Your task to perform on an android device: toggle translation in the chrome app Image 0: 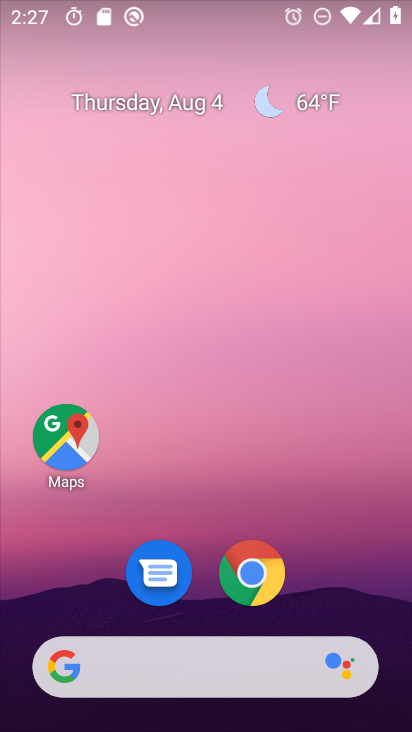
Step 0: drag from (327, 602) to (365, 188)
Your task to perform on an android device: toggle translation in the chrome app Image 1: 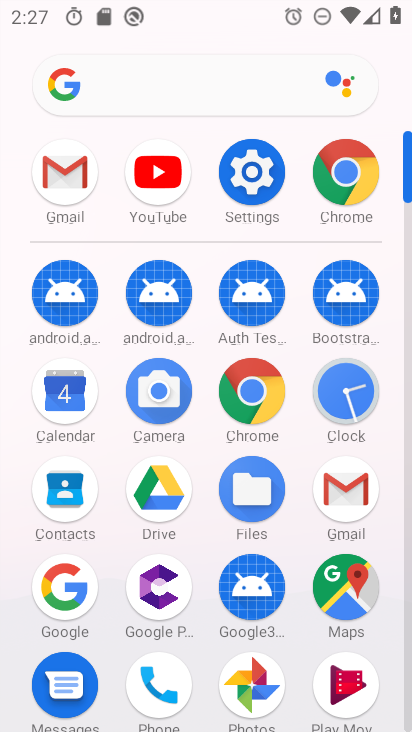
Step 1: click (258, 393)
Your task to perform on an android device: toggle translation in the chrome app Image 2: 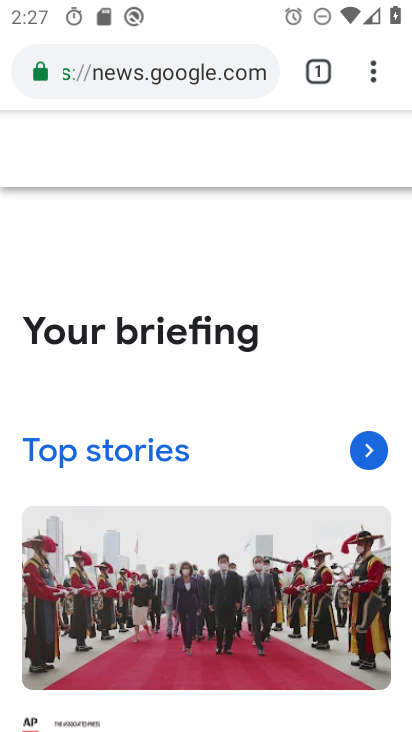
Step 2: drag from (378, 72) to (136, 574)
Your task to perform on an android device: toggle translation in the chrome app Image 3: 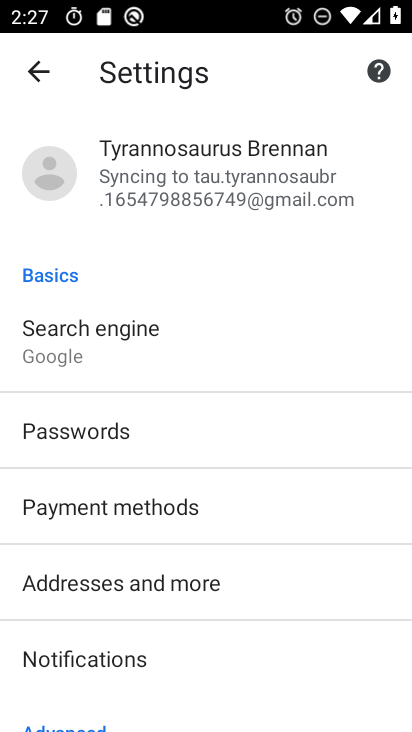
Step 3: drag from (198, 649) to (294, 219)
Your task to perform on an android device: toggle translation in the chrome app Image 4: 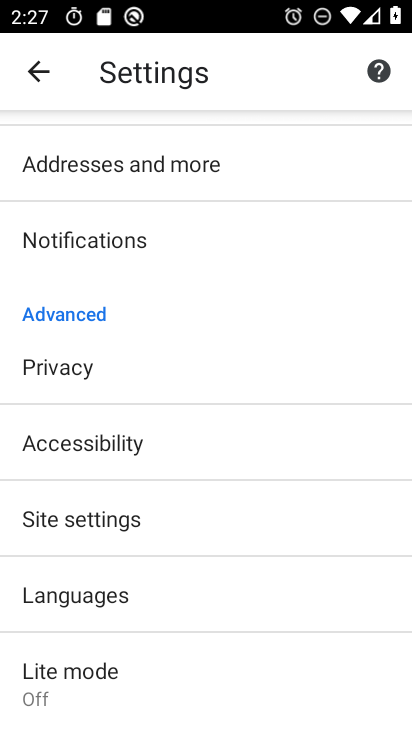
Step 4: click (122, 626)
Your task to perform on an android device: toggle translation in the chrome app Image 5: 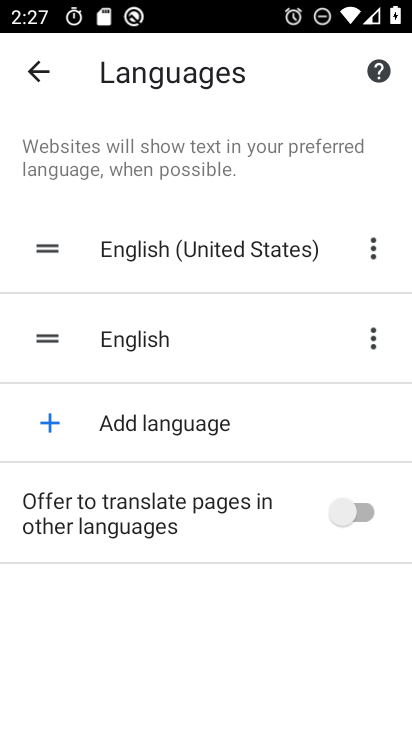
Step 5: click (342, 509)
Your task to perform on an android device: toggle translation in the chrome app Image 6: 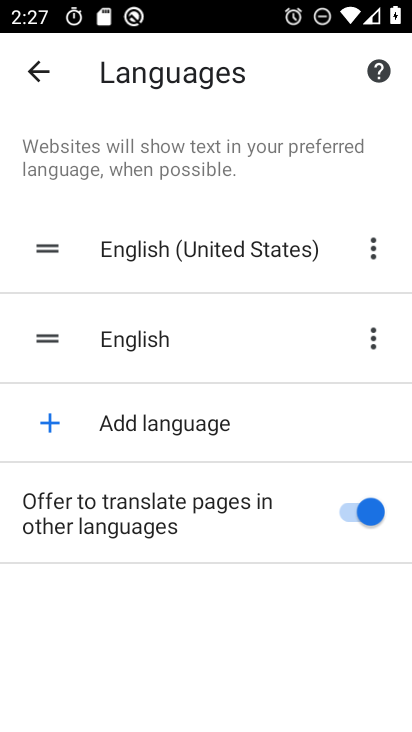
Step 6: task complete